Your task to perform on an android device: Show the shopping cart on ebay.com. Add beats solo 3 to the cart on ebay.com Image 0: 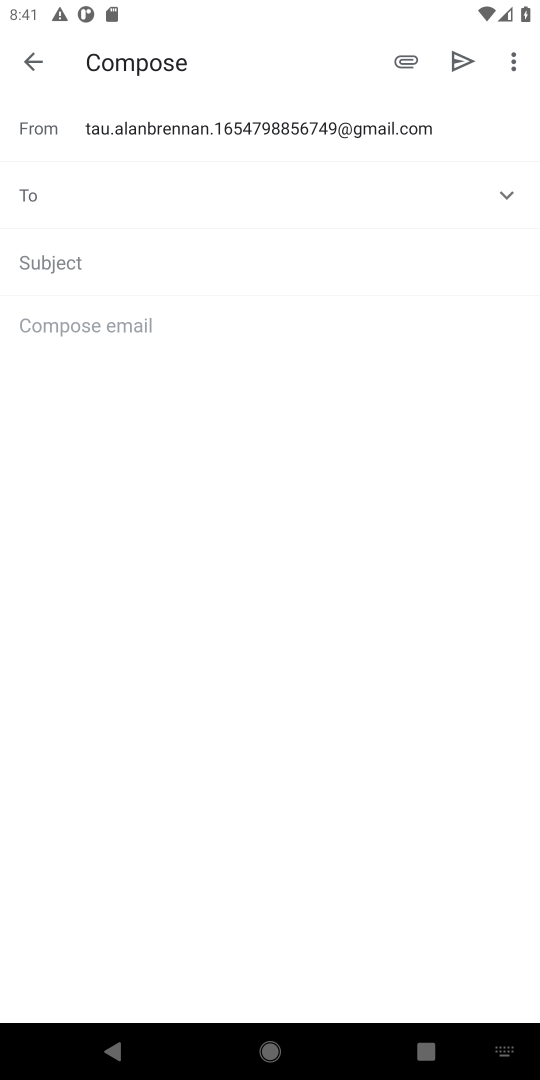
Step 0: press home button
Your task to perform on an android device: Show the shopping cart on ebay.com. Add beats solo 3 to the cart on ebay.com Image 1: 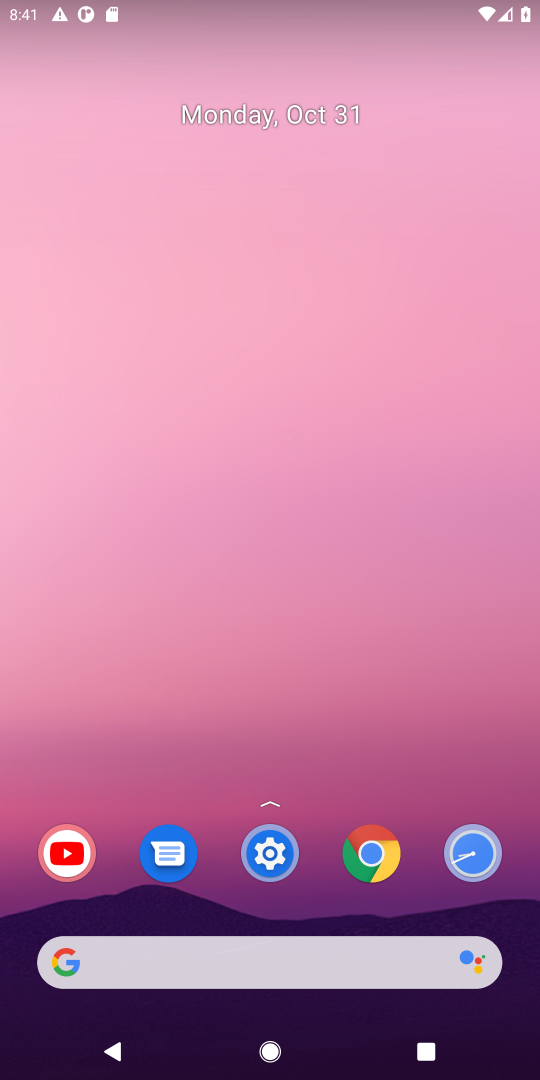
Step 1: type "ebay.com"
Your task to perform on an android device: Show the shopping cart on ebay.com. Add beats solo 3 to the cart on ebay.com Image 2: 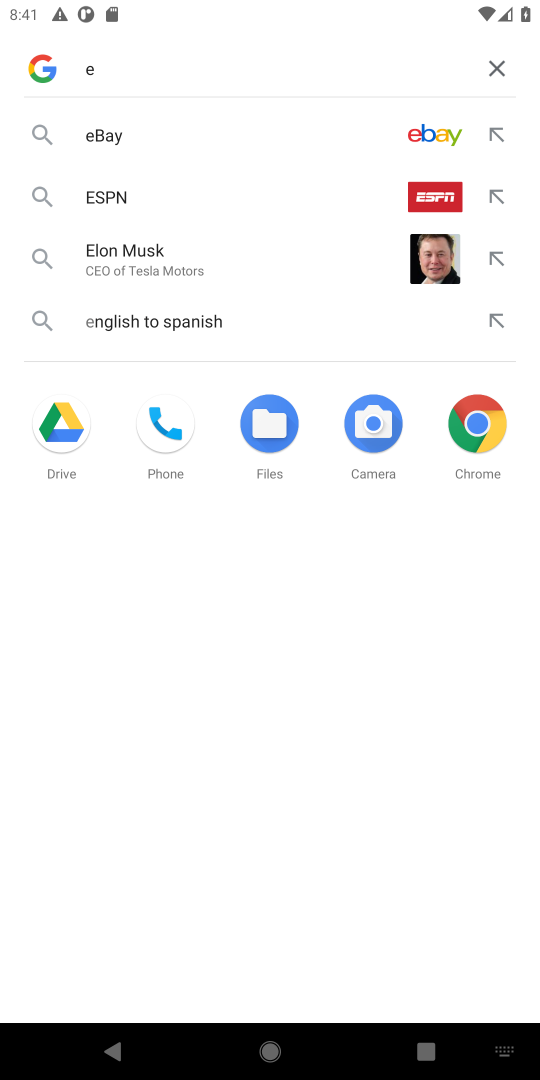
Step 2: click (102, 132)
Your task to perform on an android device: Show the shopping cart on ebay.com. Add beats solo 3 to the cart on ebay.com Image 3: 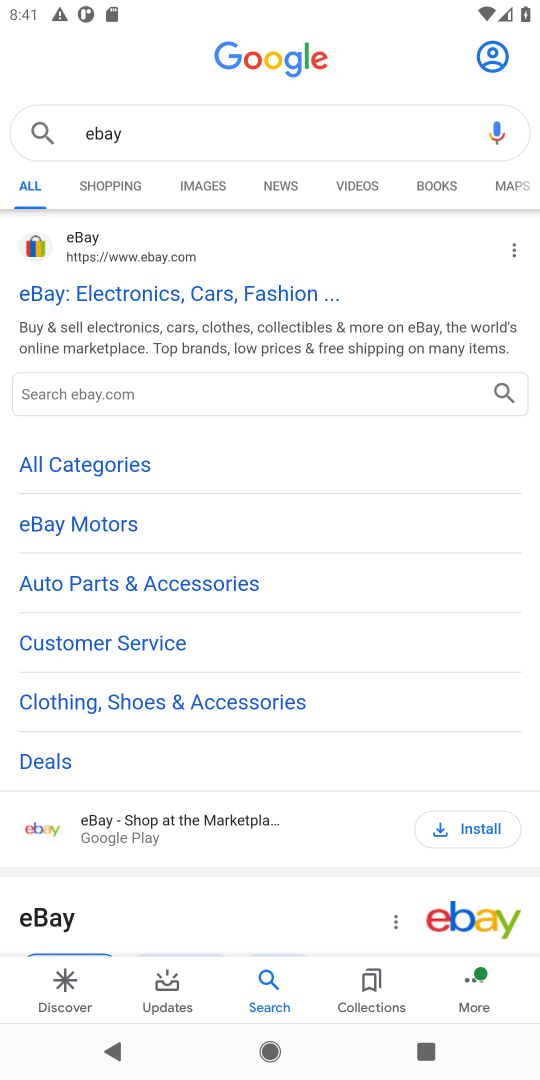
Step 3: click (62, 236)
Your task to perform on an android device: Show the shopping cart on ebay.com. Add beats solo 3 to the cart on ebay.com Image 4: 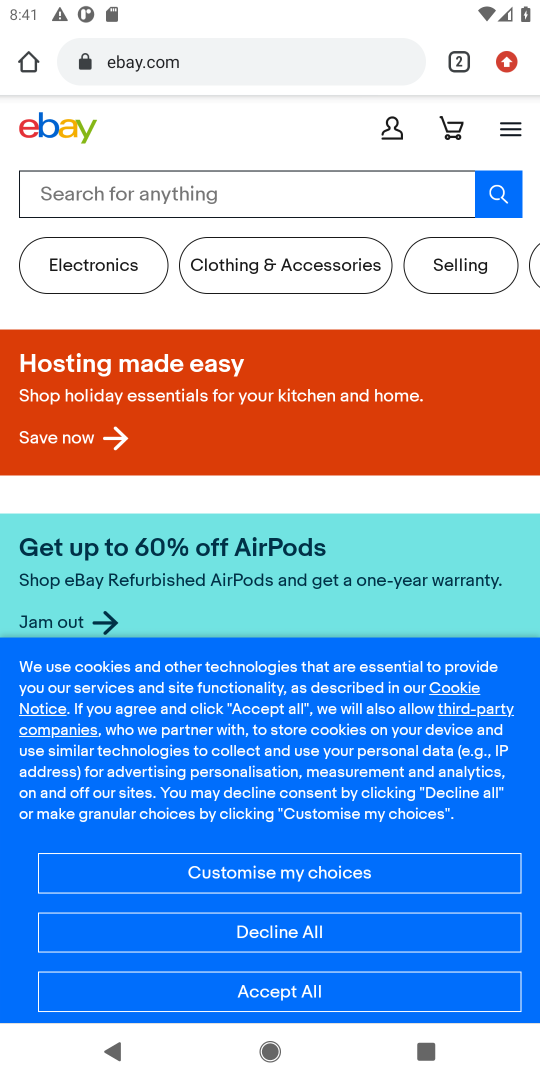
Step 4: click (215, 193)
Your task to perform on an android device: Show the shopping cart on ebay.com. Add beats solo 3 to the cart on ebay.com Image 5: 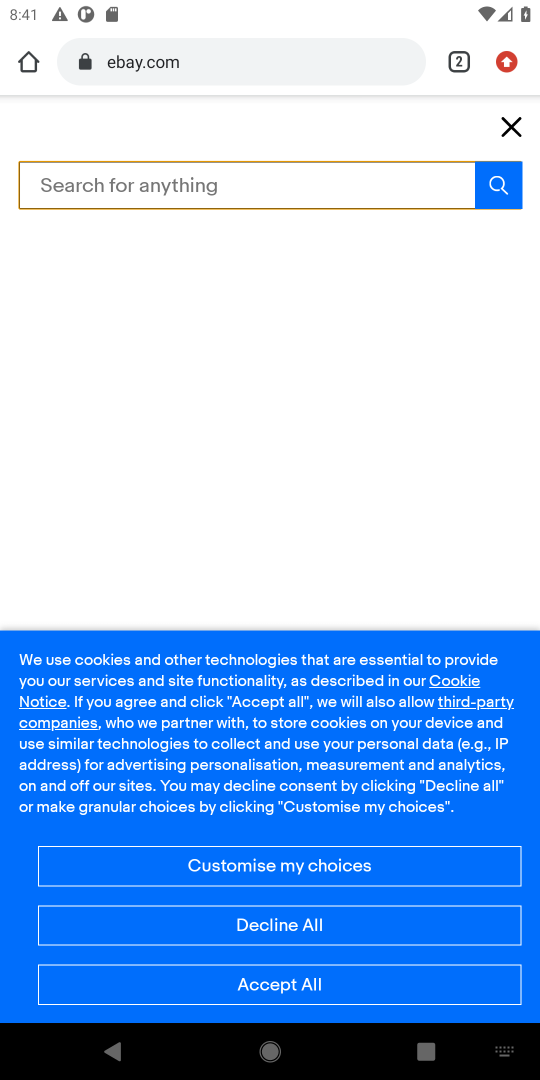
Step 5: click (369, 988)
Your task to perform on an android device: Show the shopping cart on ebay.com. Add beats solo 3 to the cart on ebay.com Image 6: 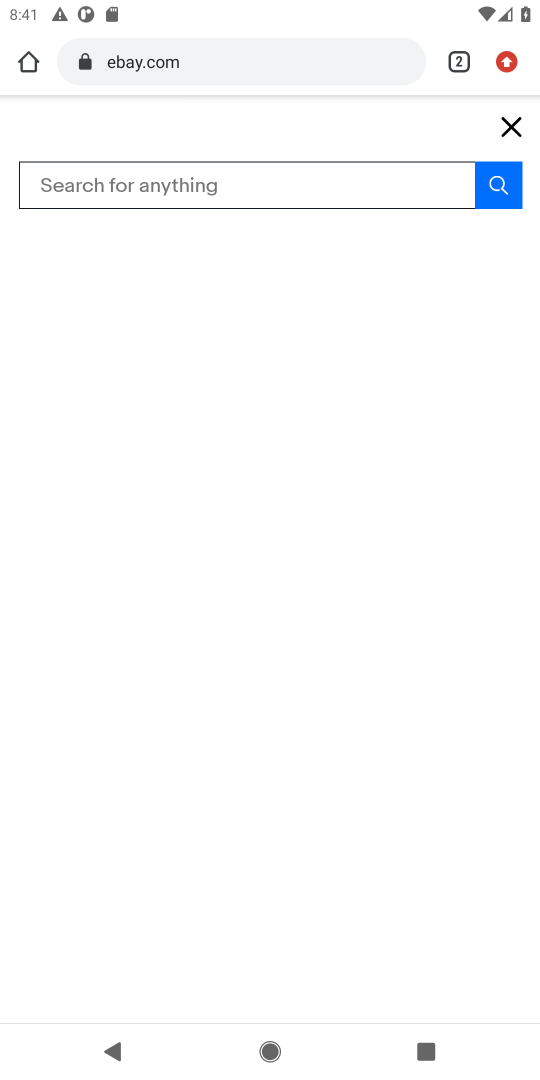
Step 6: click (151, 182)
Your task to perform on an android device: Show the shopping cart on ebay.com. Add beats solo 3 to the cart on ebay.com Image 7: 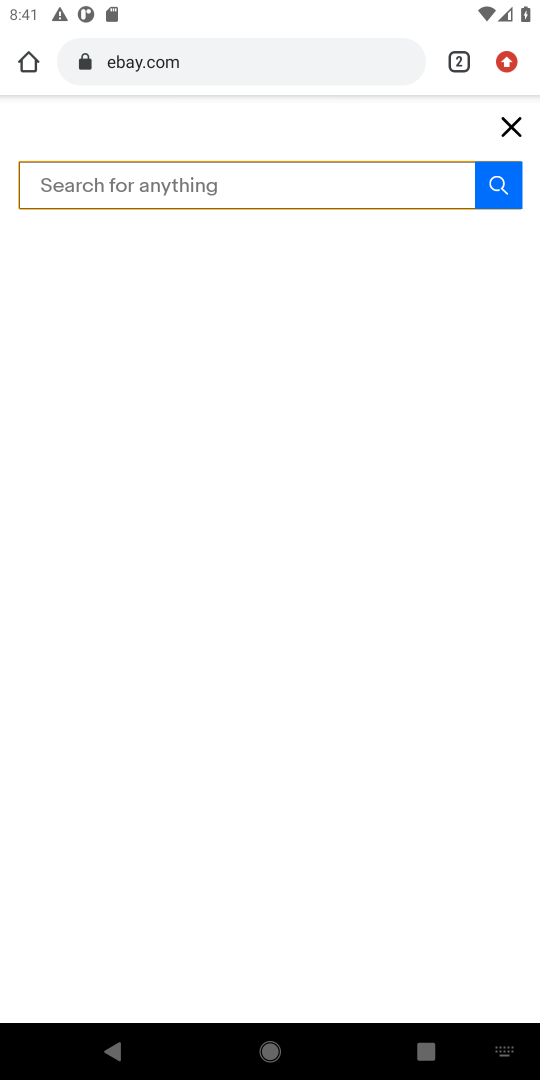
Step 7: type "beats solo 3"
Your task to perform on an android device: Show the shopping cart on ebay.com. Add beats solo 3 to the cart on ebay.com Image 8: 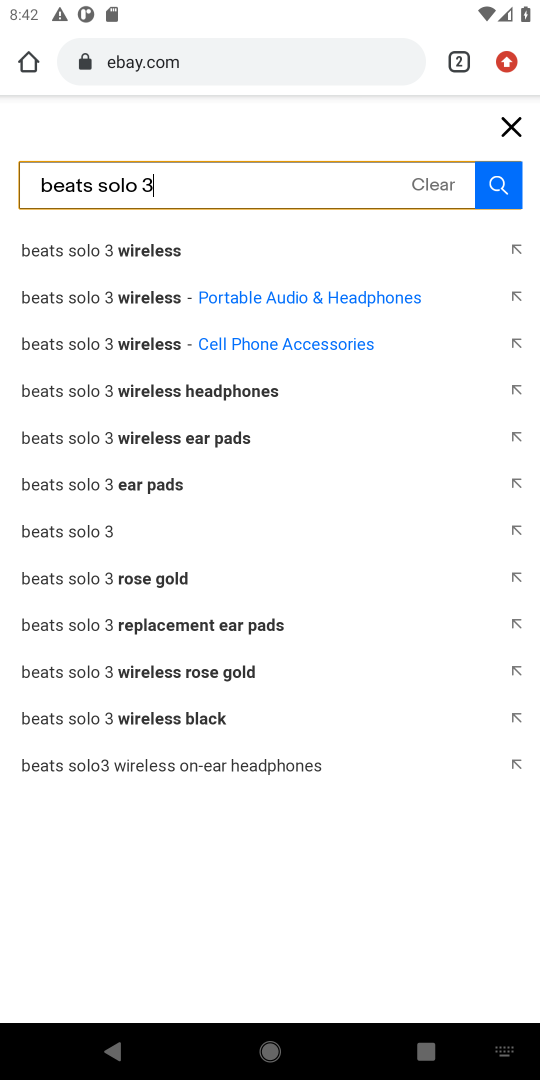
Step 8: click (76, 527)
Your task to perform on an android device: Show the shopping cart on ebay.com. Add beats solo 3 to the cart on ebay.com Image 9: 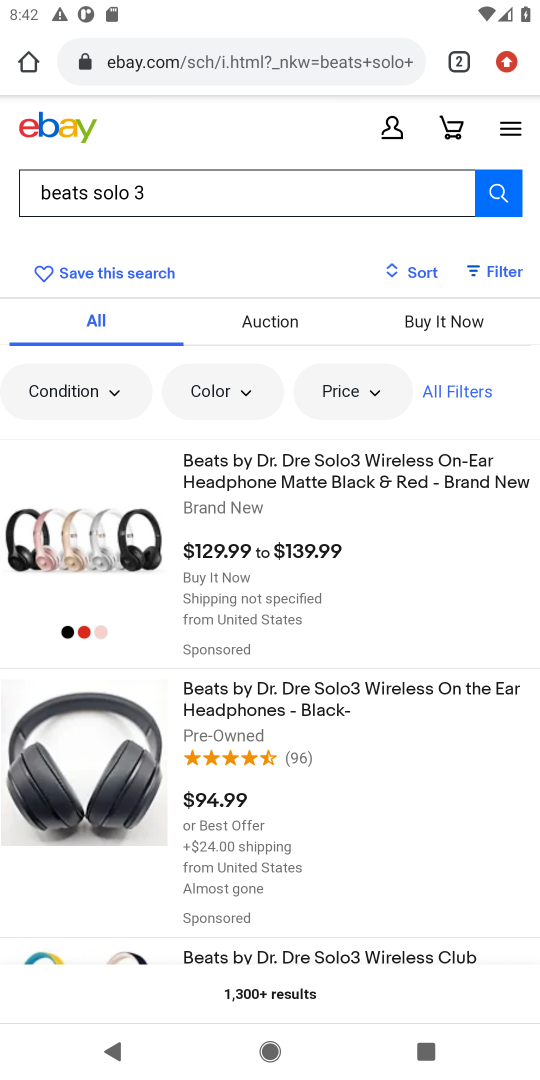
Step 9: click (233, 454)
Your task to perform on an android device: Show the shopping cart on ebay.com. Add beats solo 3 to the cart on ebay.com Image 10: 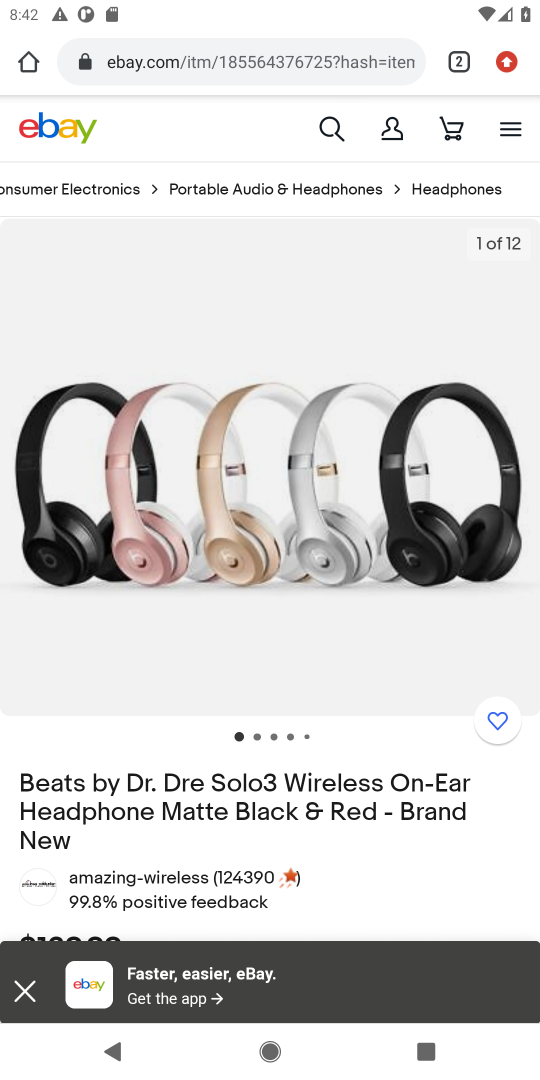
Step 10: click (23, 997)
Your task to perform on an android device: Show the shopping cart on ebay.com. Add beats solo 3 to the cart on ebay.com Image 11: 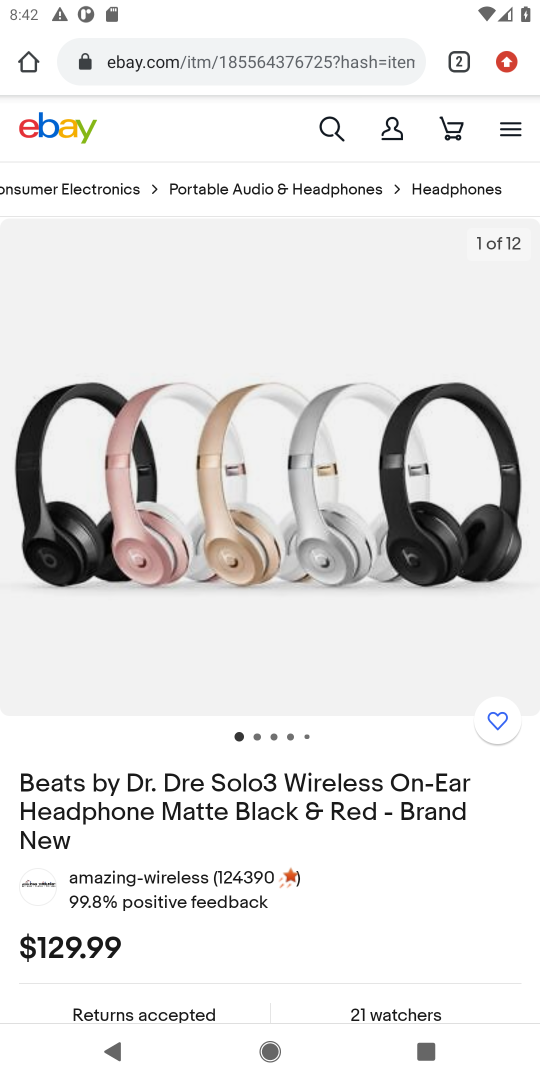
Step 11: drag from (450, 882) to (381, 535)
Your task to perform on an android device: Show the shopping cart on ebay.com. Add beats solo 3 to the cart on ebay.com Image 12: 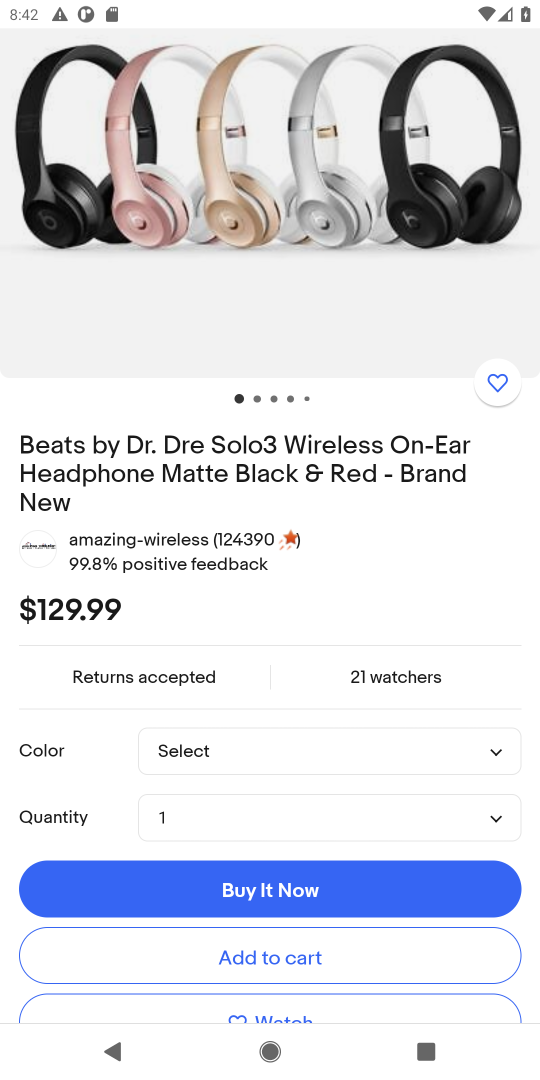
Step 12: click (305, 954)
Your task to perform on an android device: Show the shopping cart on ebay.com. Add beats solo 3 to the cart on ebay.com Image 13: 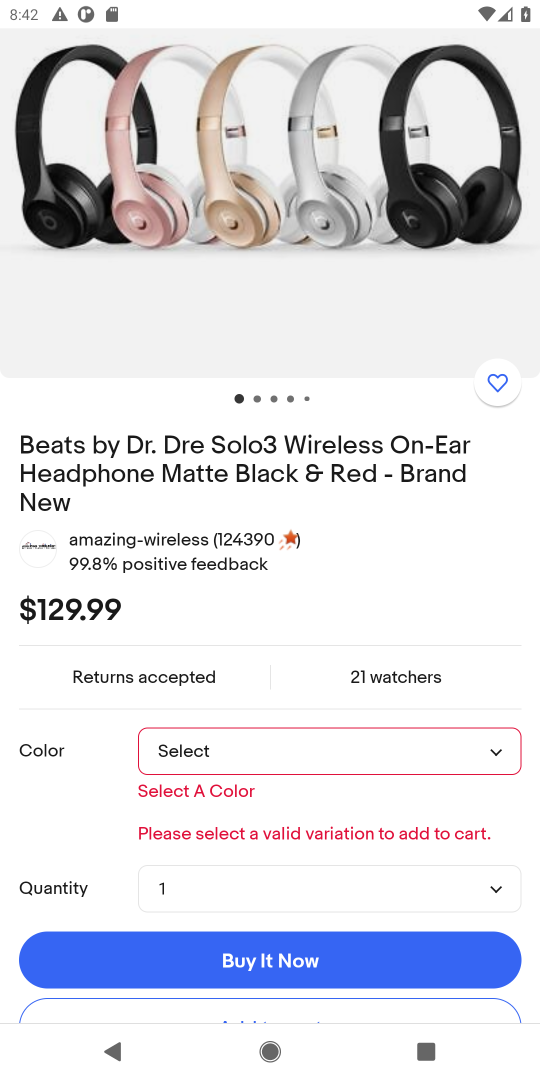
Step 13: click (471, 758)
Your task to perform on an android device: Show the shopping cart on ebay.com. Add beats solo 3 to the cart on ebay.com Image 14: 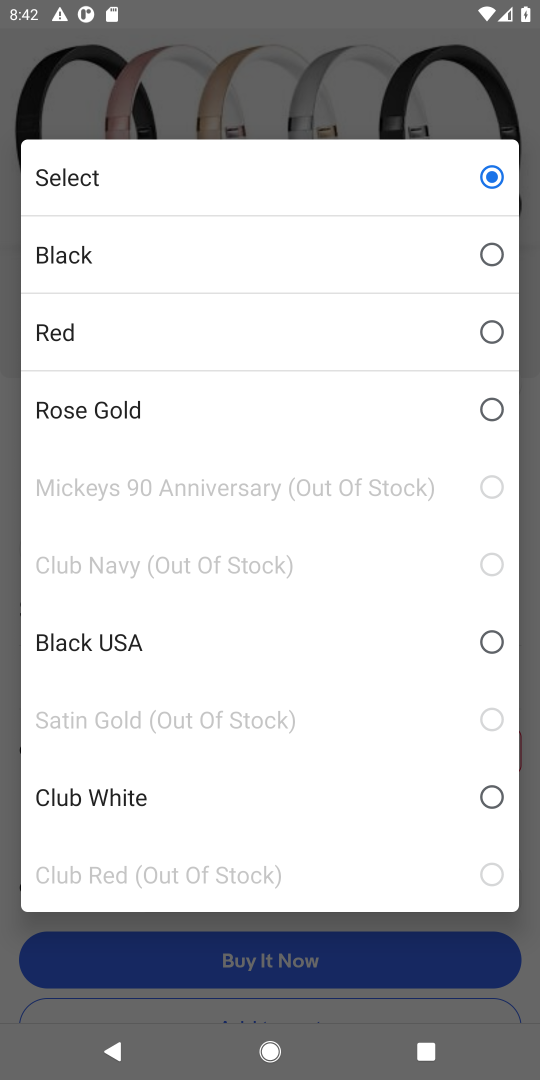
Step 14: click (488, 252)
Your task to perform on an android device: Show the shopping cart on ebay.com. Add beats solo 3 to the cart on ebay.com Image 15: 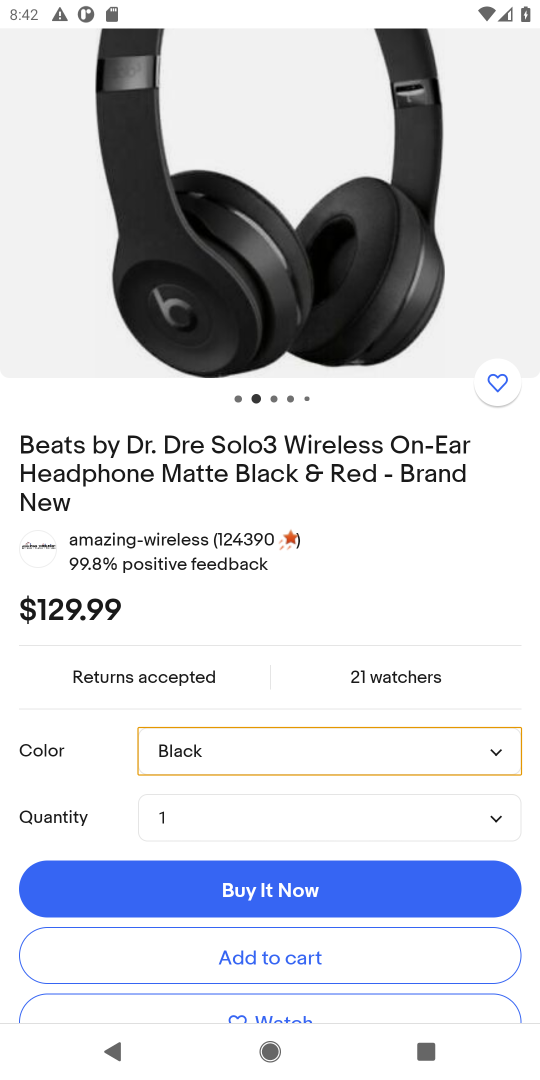
Step 15: click (315, 961)
Your task to perform on an android device: Show the shopping cart on ebay.com. Add beats solo 3 to the cart on ebay.com Image 16: 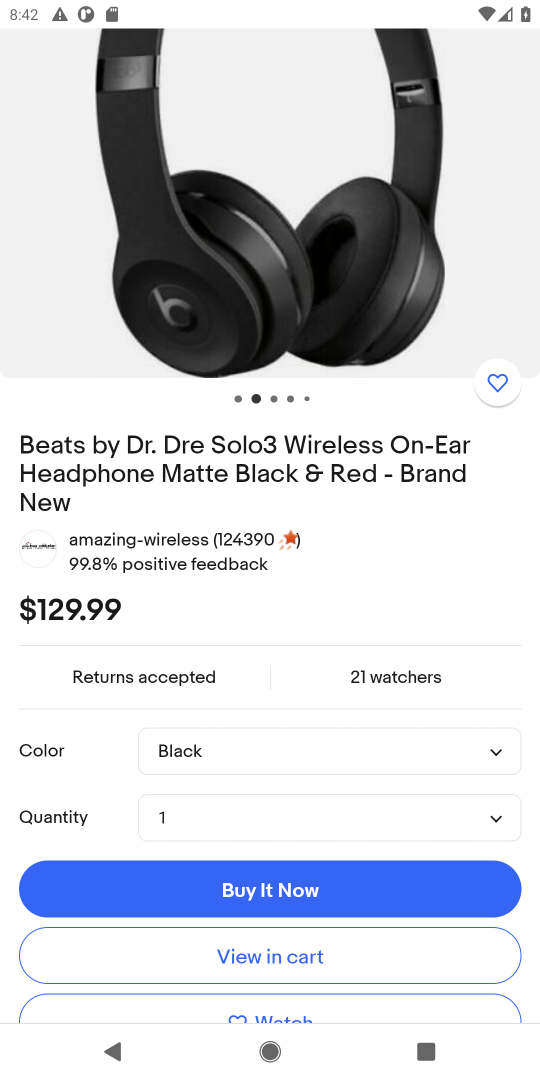
Step 16: task complete